Your task to perform on an android device: Check the news Image 0: 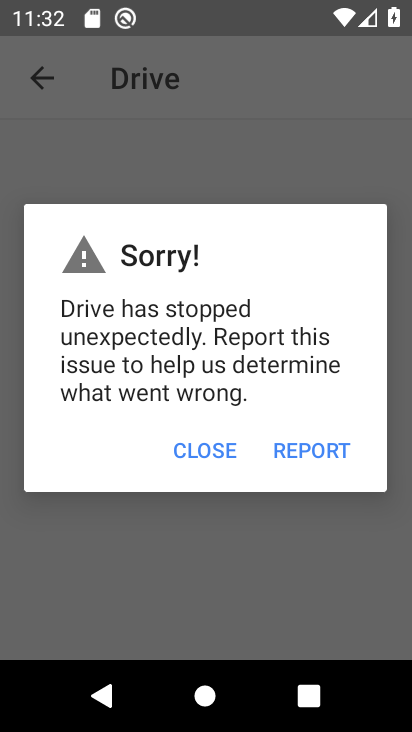
Step 0: press home button
Your task to perform on an android device: Check the news Image 1: 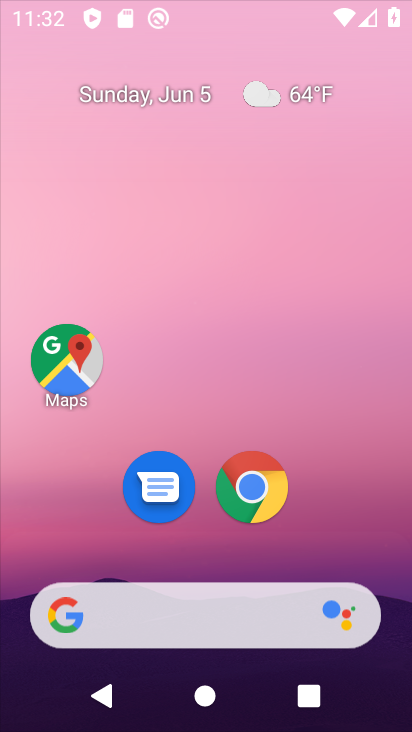
Step 1: press home button
Your task to perform on an android device: Check the news Image 2: 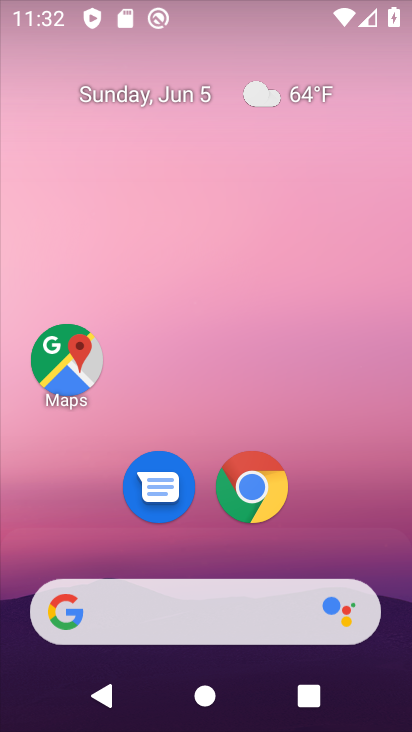
Step 2: click (346, 154)
Your task to perform on an android device: Check the news Image 3: 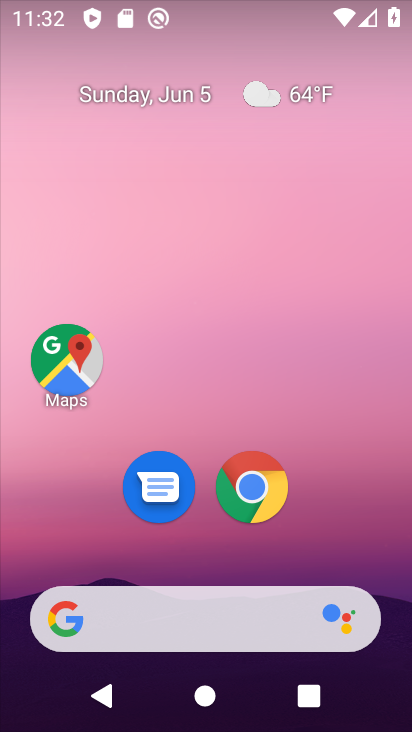
Step 3: drag from (311, 531) to (374, 184)
Your task to perform on an android device: Check the news Image 4: 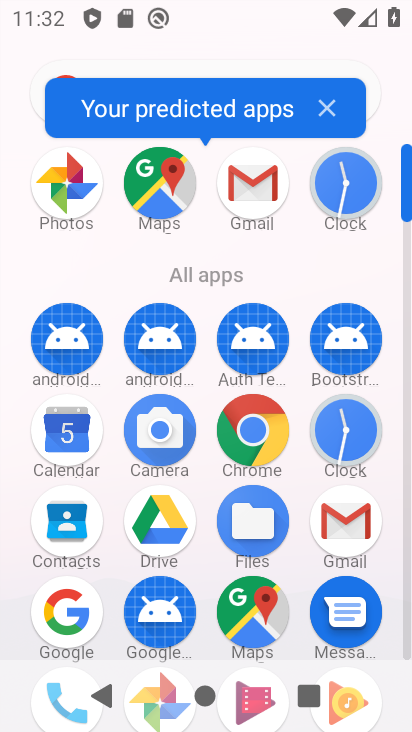
Step 4: click (252, 447)
Your task to perform on an android device: Check the news Image 5: 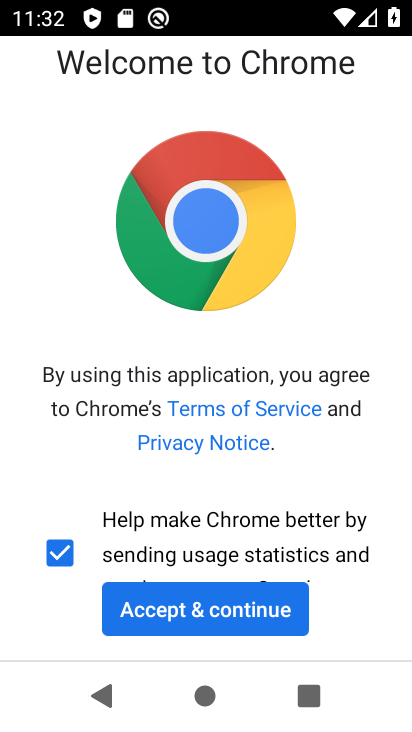
Step 5: click (189, 593)
Your task to perform on an android device: Check the news Image 6: 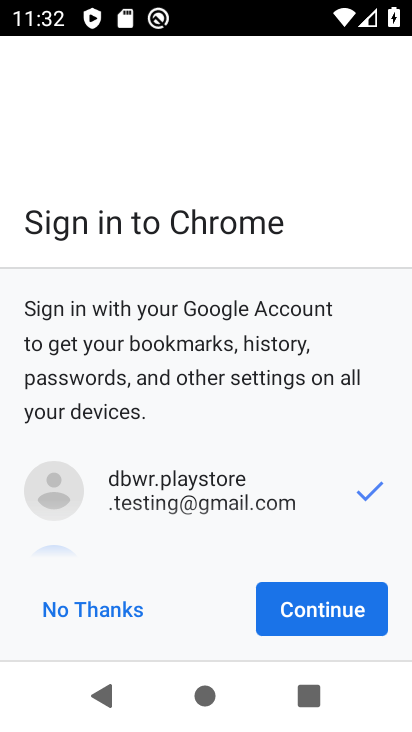
Step 6: click (289, 619)
Your task to perform on an android device: Check the news Image 7: 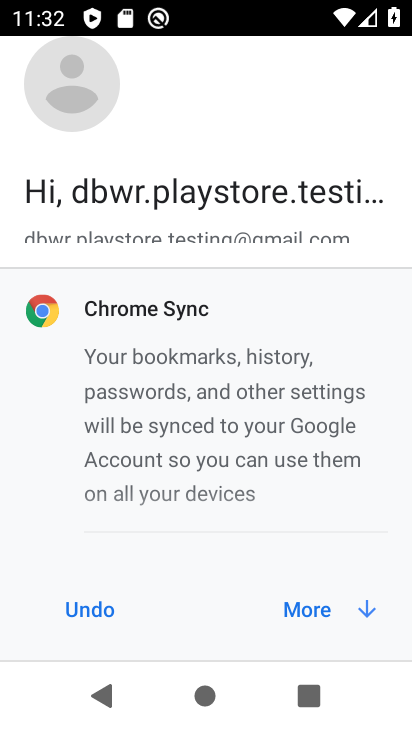
Step 7: click (289, 618)
Your task to perform on an android device: Check the news Image 8: 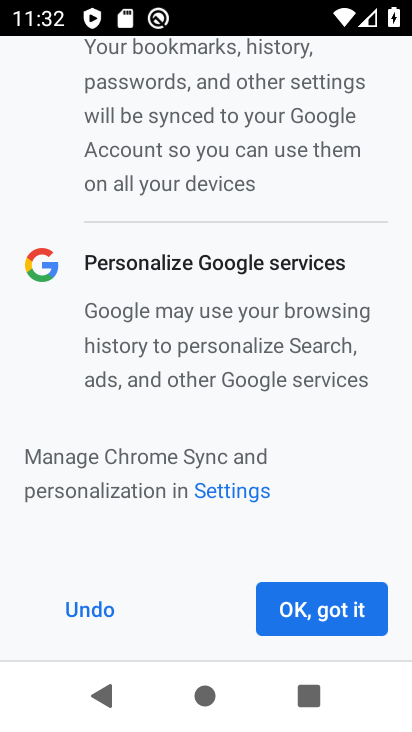
Step 8: click (289, 618)
Your task to perform on an android device: Check the news Image 9: 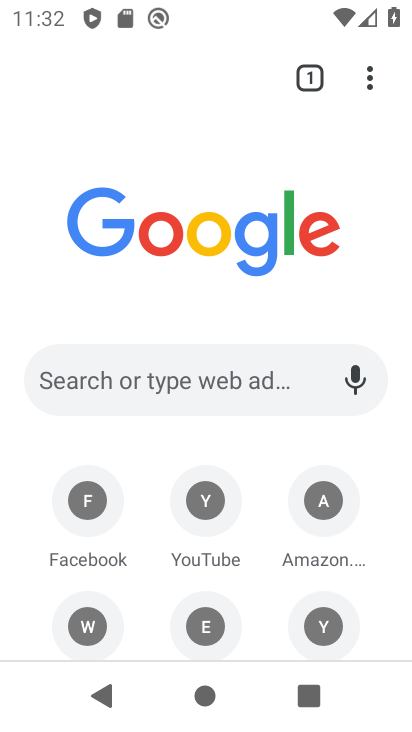
Step 9: click (236, 356)
Your task to perform on an android device: Check the news Image 10: 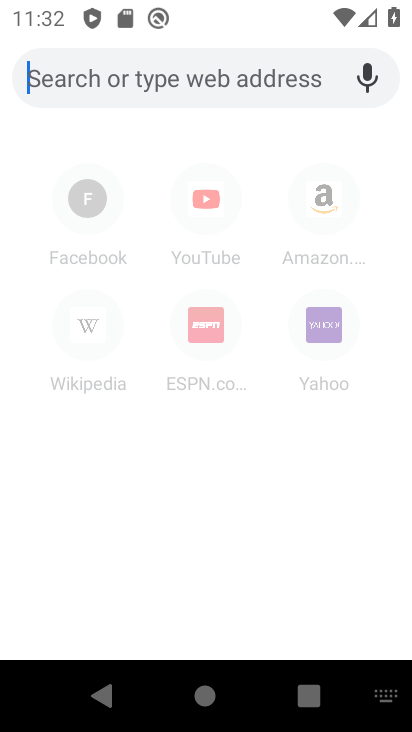
Step 10: type "the news"
Your task to perform on an android device: Check the news Image 11: 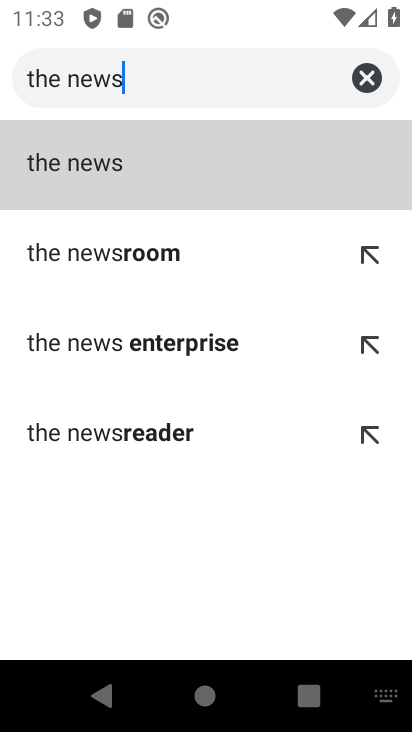
Step 11: click (86, 156)
Your task to perform on an android device: Check the news Image 12: 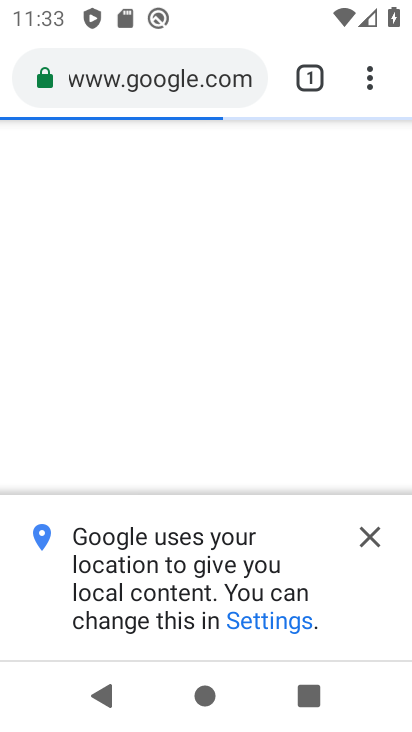
Step 12: click (370, 537)
Your task to perform on an android device: Check the news Image 13: 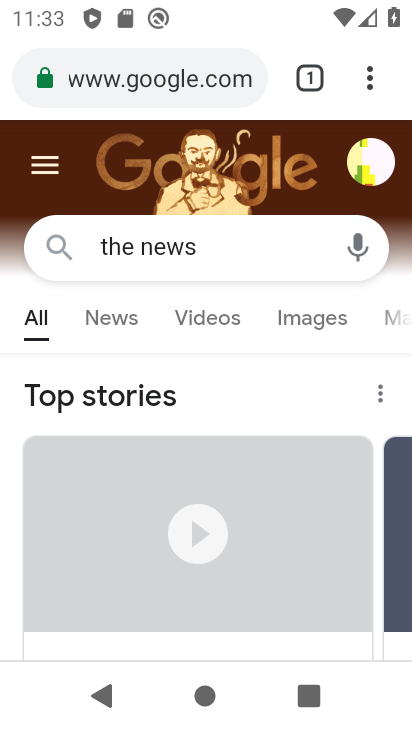
Step 13: task complete